Your task to perform on an android device: toggle translation in the chrome app Image 0: 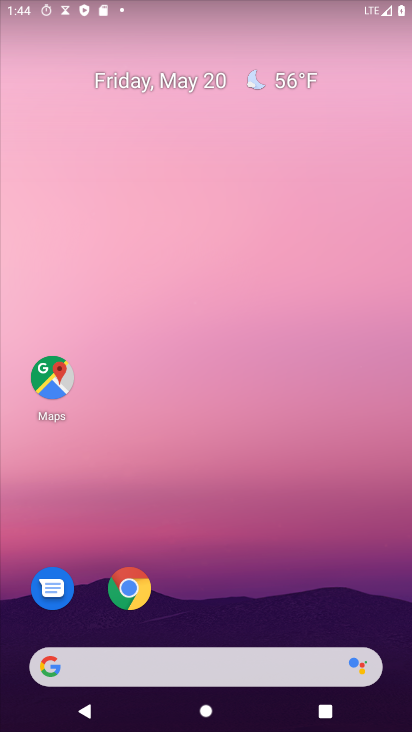
Step 0: press home button
Your task to perform on an android device: toggle translation in the chrome app Image 1: 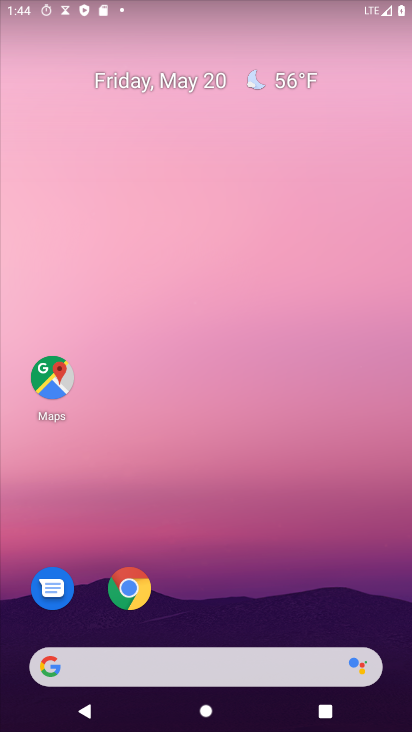
Step 1: click (126, 594)
Your task to perform on an android device: toggle translation in the chrome app Image 2: 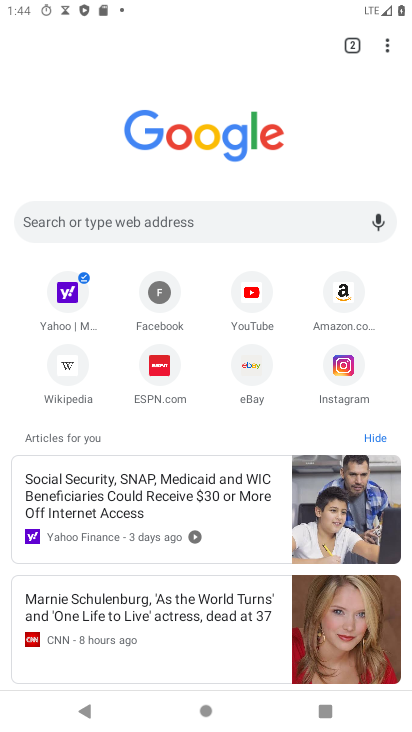
Step 2: click (383, 49)
Your task to perform on an android device: toggle translation in the chrome app Image 3: 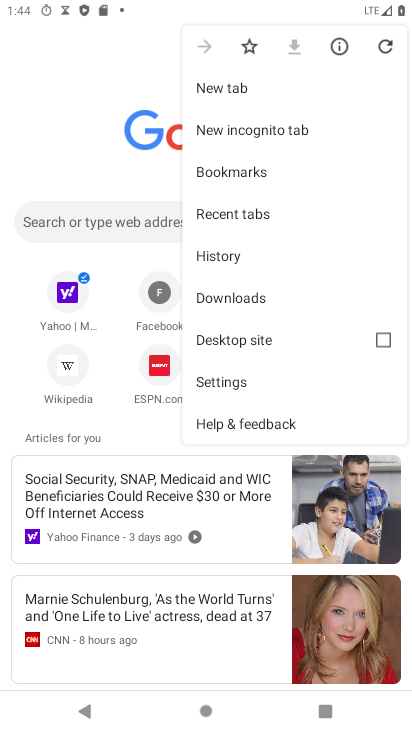
Step 3: click (201, 377)
Your task to perform on an android device: toggle translation in the chrome app Image 4: 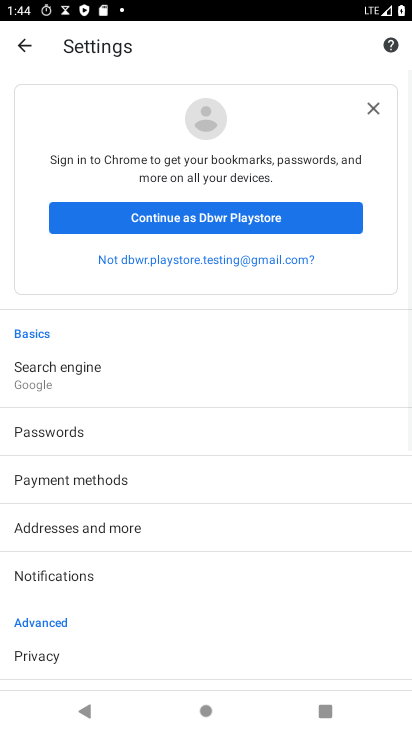
Step 4: drag from (6, 407) to (107, 151)
Your task to perform on an android device: toggle translation in the chrome app Image 5: 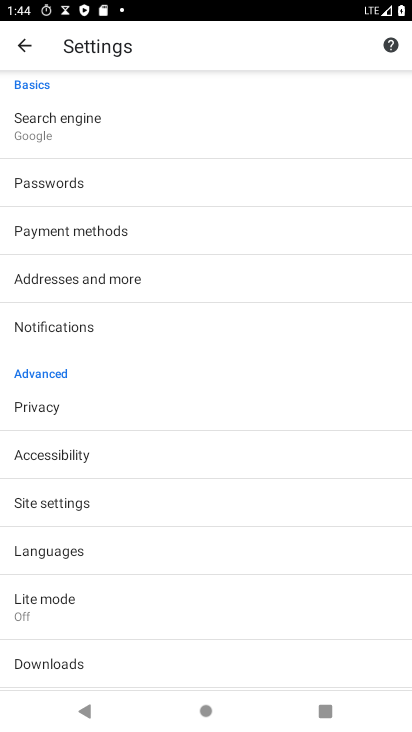
Step 5: click (50, 554)
Your task to perform on an android device: toggle translation in the chrome app Image 6: 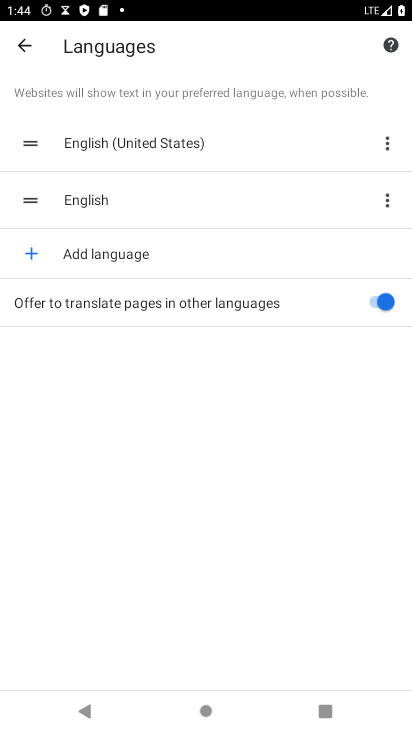
Step 6: click (391, 303)
Your task to perform on an android device: toggle translation in the chrome app Image 7: 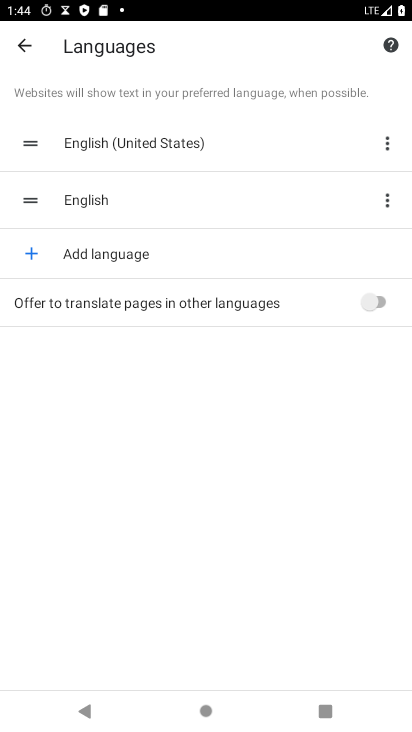
Step 7: task complete